Your task to perform on an android device: Go to wifi settings Image 0: 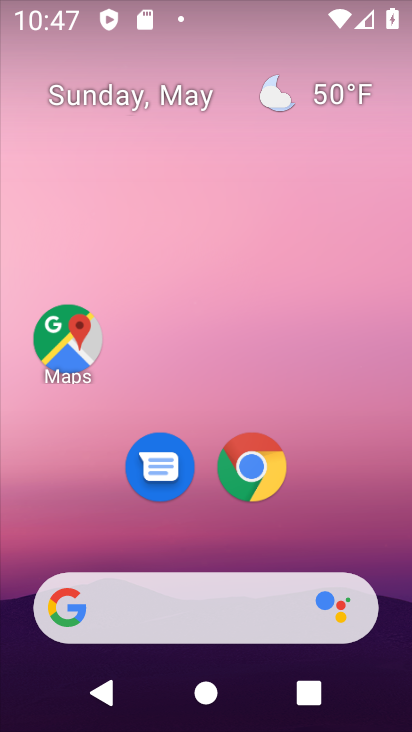
Step 0: drag from (154, 548) to (199, 100)
Your task to perform on an android device: Go to wifi settings Image 1: 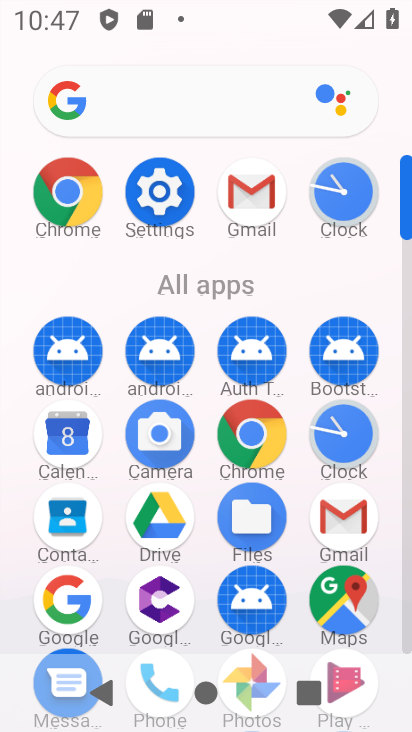
Step 1: drag from (223, 658) to (315, 289)
Your task to perform on an android device: Go to wifi settings Image 2: 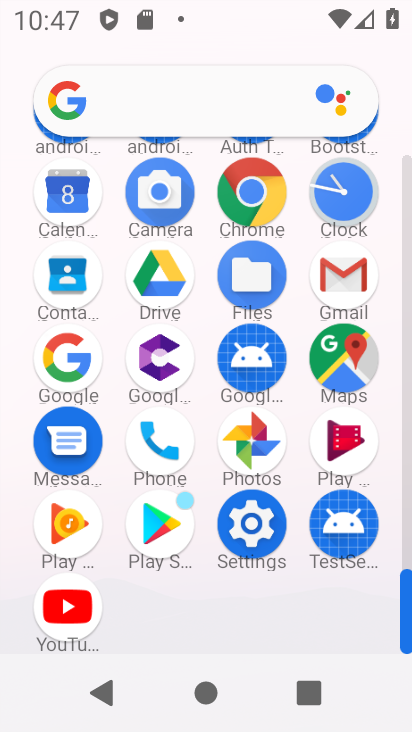
Step 2: click (268, 512)
Your task to perform on an android device: Go to wifi settings Image 3: 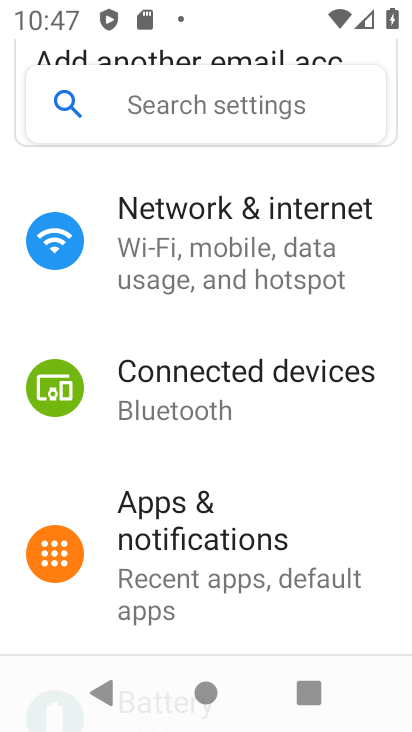
Step 3: click (351, 242)
Your task to perform on an android device: Go to wifi settings Image 4: 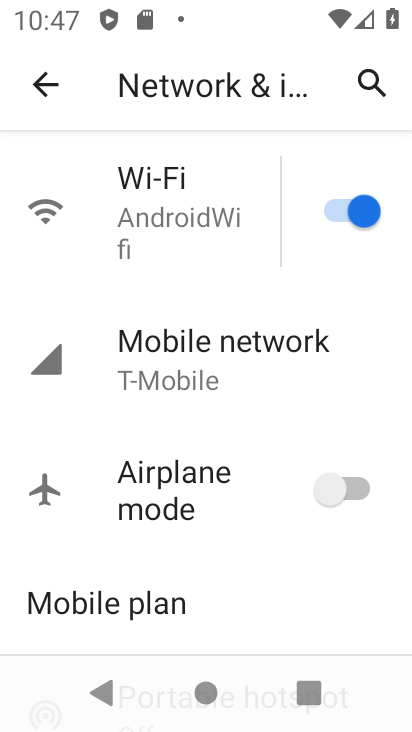
Step 4: click (183, 257)
Your task to perform on an android device: Go to wifi settings Image 5: 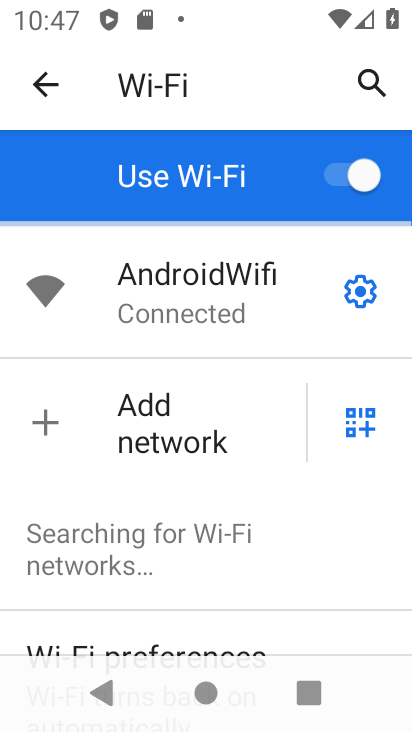
Step 5: task complete